Your task to perform on an android device: uninstall "Google Docs" Image 0: 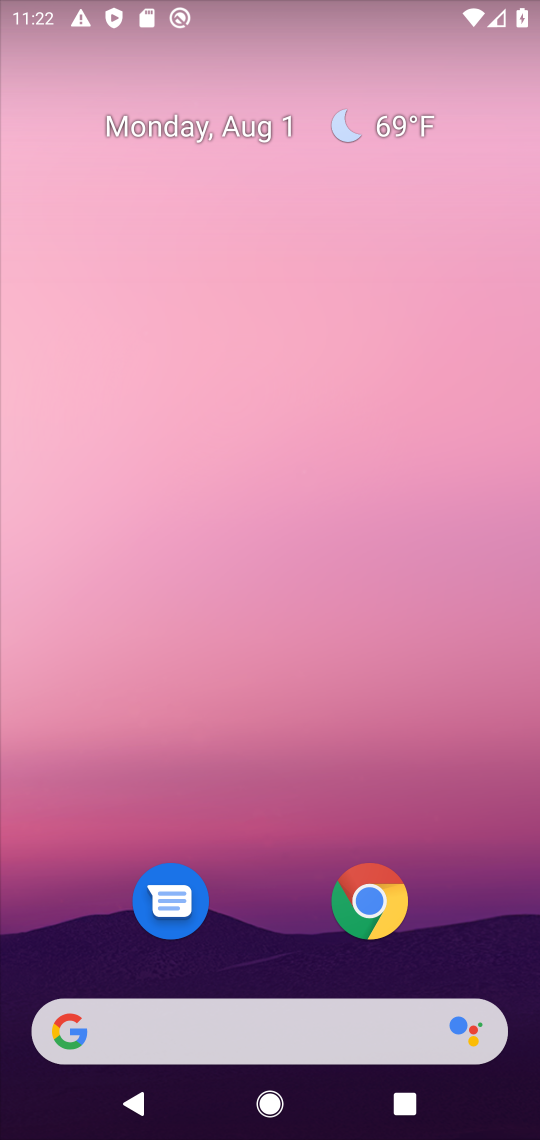
Step 0: drag from (275, 727) to (275, 233)
Your task to perform on an android device: uninstall "Google Docs" Image 1: 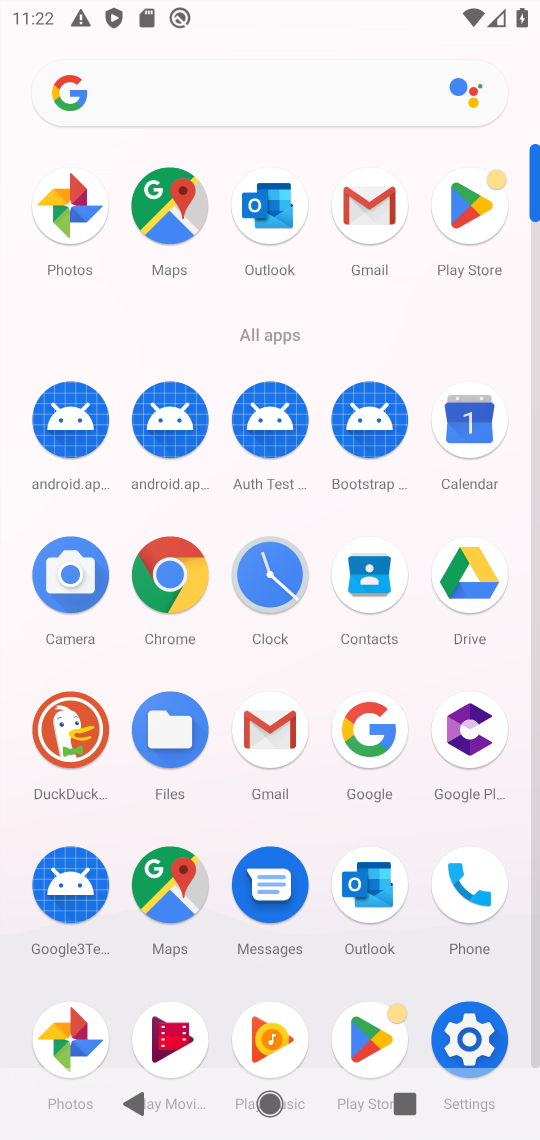
Step 1: click (457, 213)
Your task to perform on an android device: uninstall "Google Docs" Image 2: 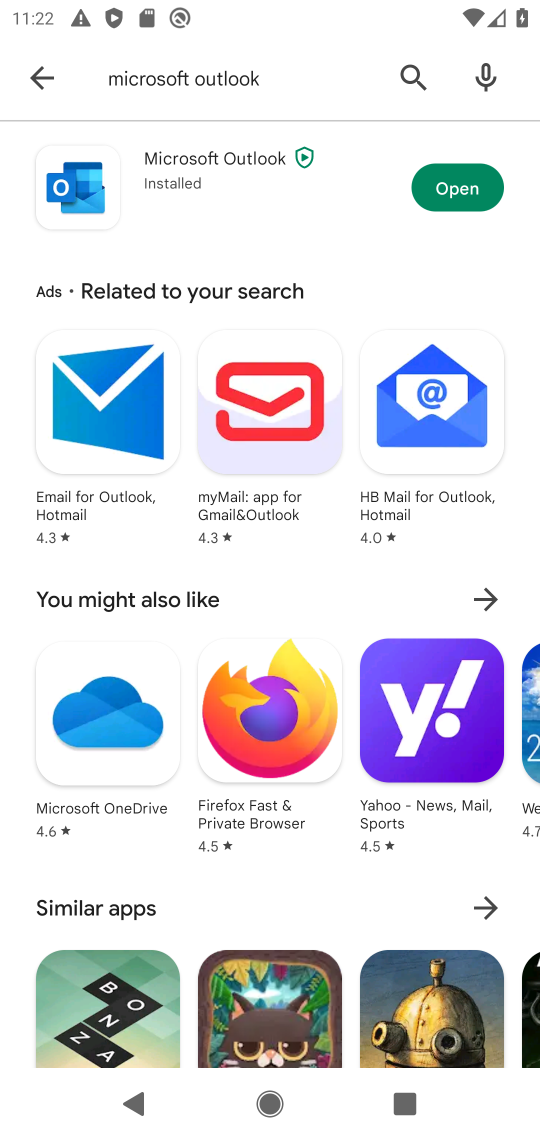
Step 2: click (407, 70)
Your task to perform on an android device: uninstall "Google Docs" Image 3: 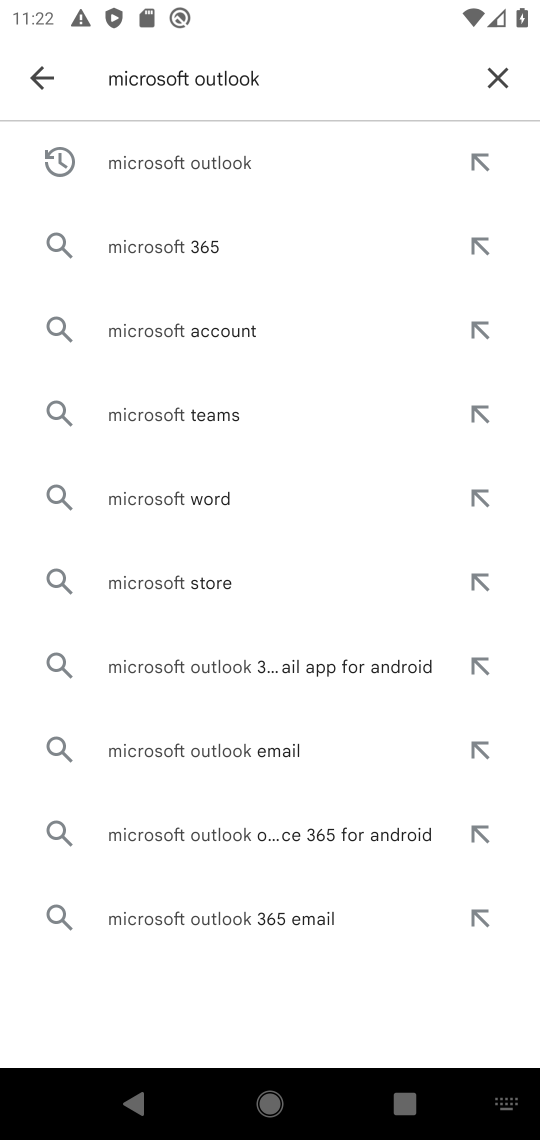
Step 3: click (491, 79)
Your task to perform on an android device: uninstall "Google Docs" Image 4: 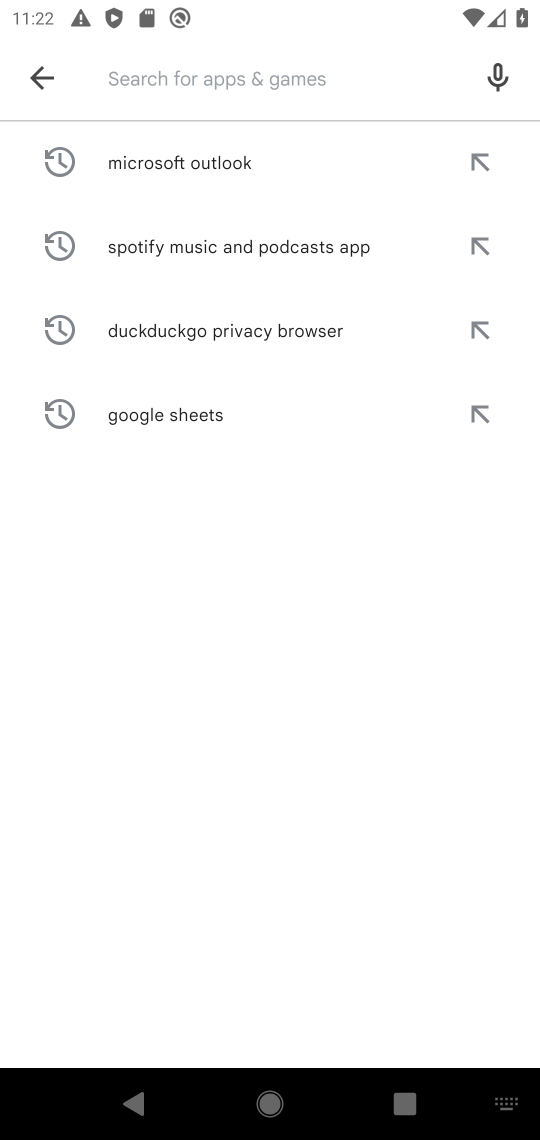
Step 4: type "Google Docs"
Your task to perform on an android device: uninstall "Google Docs" Image 5: 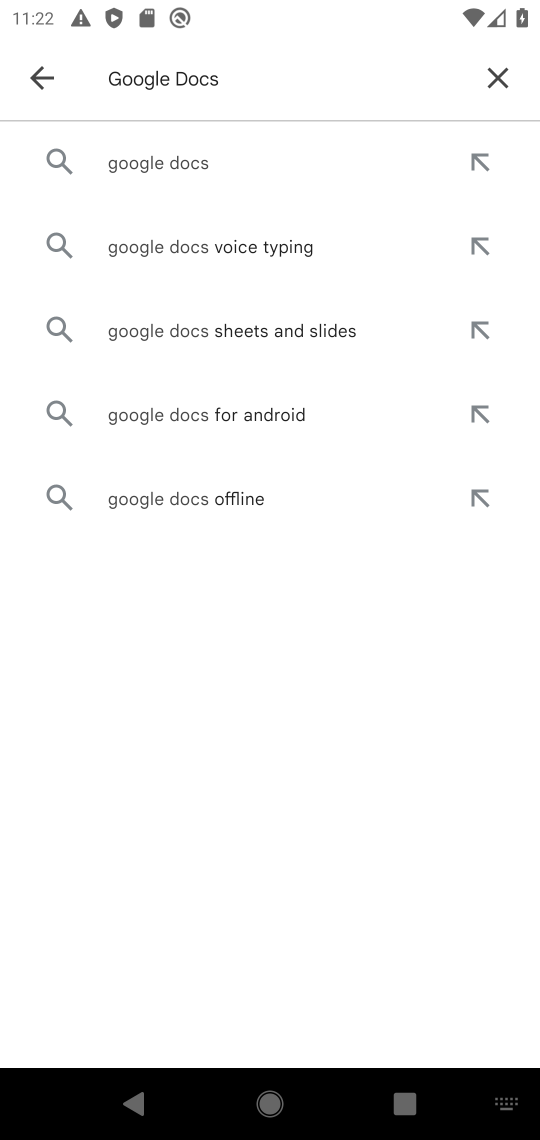
Step 5: click (119, 152)
Your task to perform on an android device: uninstall "Google Docs" Image 6: 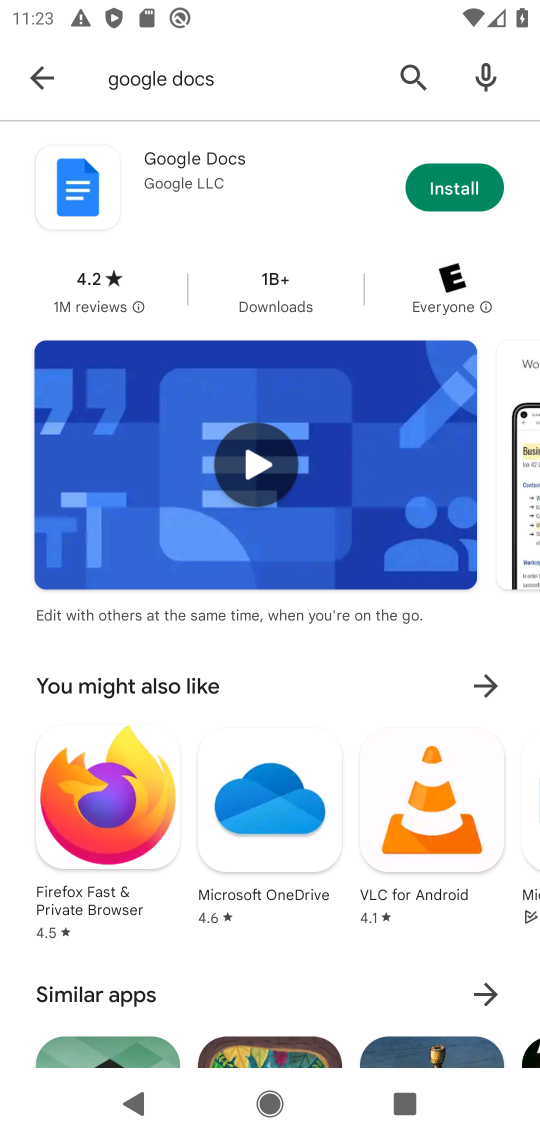
Step 6: task complete